Your task to perform on an android device: turn vacation reply on in the gmail app Image 0: 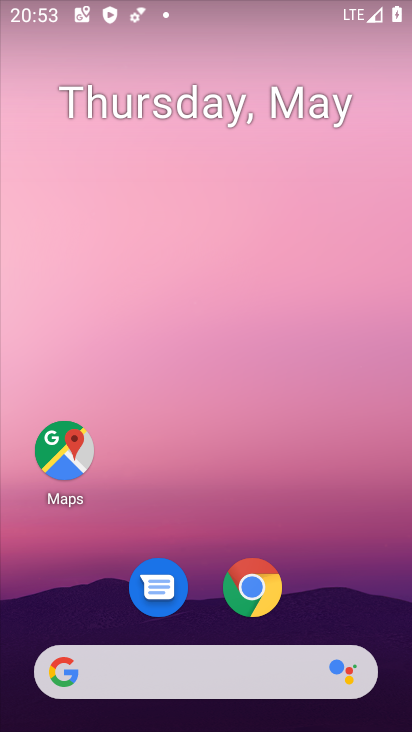
Step 0: drag from (132, 728) to (143, 128)
Your task to perform on an android device: turn vacation reply on in the gmail app Image 1: 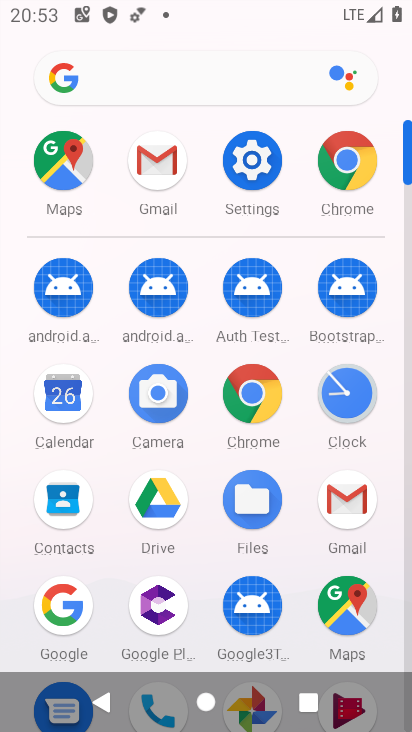
Step 1: click (161, 164)
Your task to perform on an android device: turn vacation reply on in the gmail app Image 2: 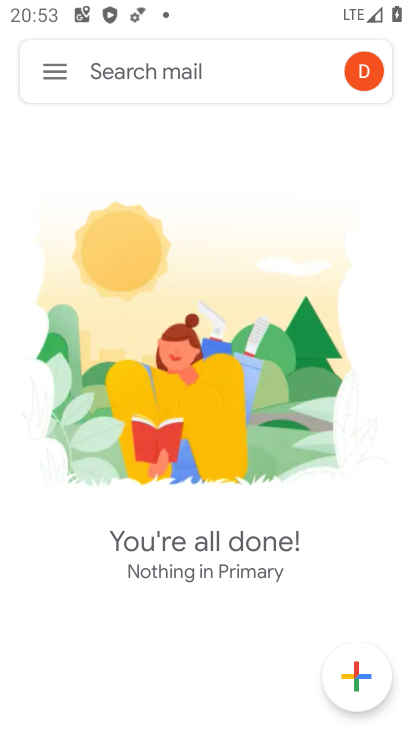
Step 2: click (53, 75)
Your task to perform on an android device: turn vacation reply on in the gmail app Image 3: 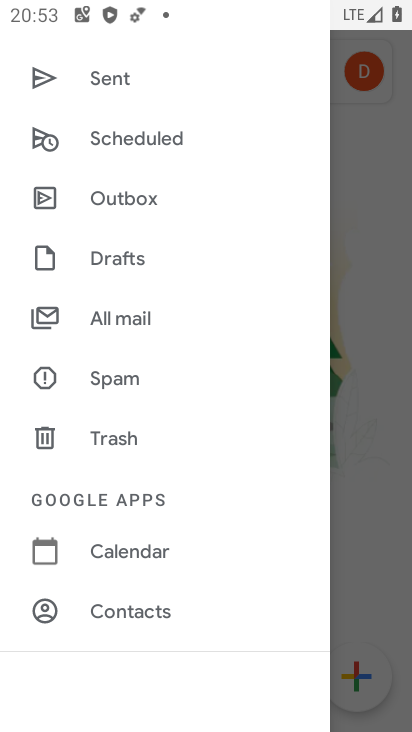
Step 3: drag from (142, 665) to (244, 164)
Your task to perform on an android device: turn vacation reply on in the gmail app Image 4: 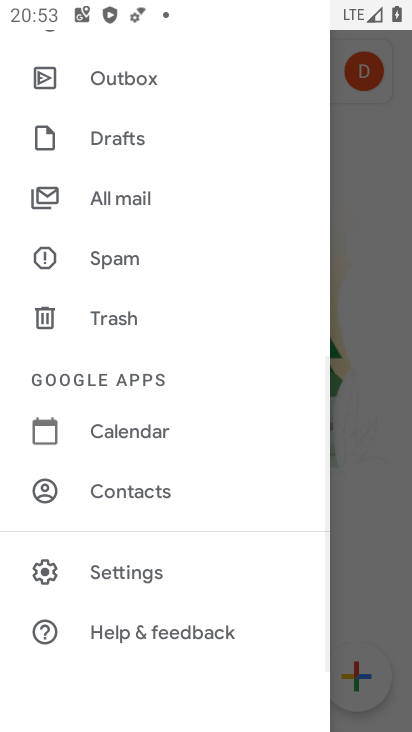
Step 4: click (160, 576)
Your task to perform on an android device: turn vacation reply on in the gmail app Image 5: 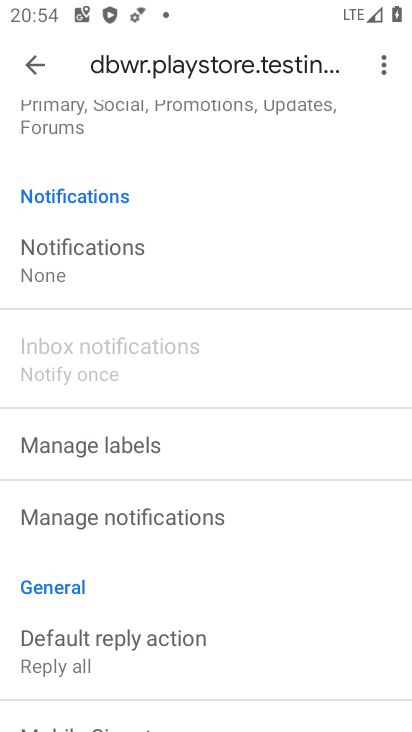
Step 5: drag from (283, 677) to (305, 271)
Your task to perform on an android device: turn vacation reply on in the gmail app Image 6: 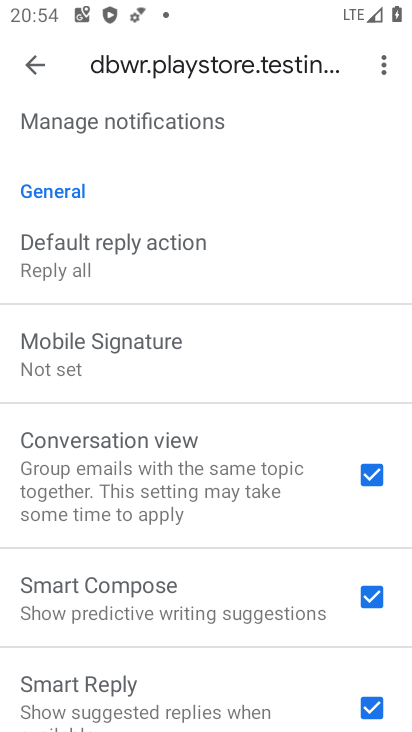
Step 6: drag from (237, 668) to (251, 393)
Your task to perform on an android device: turn vacation reply on in the gmail app Image 7: 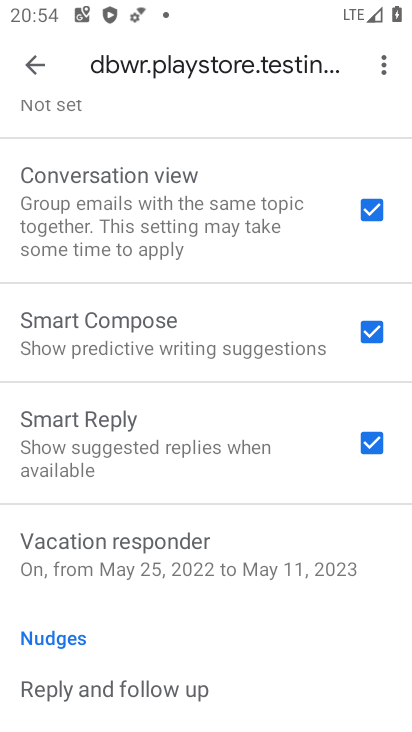
Step 7: drag from (237, 622) to (214, 388)
Your task to perform on an android device: turn vacation reply on in the gmail app Image 8: 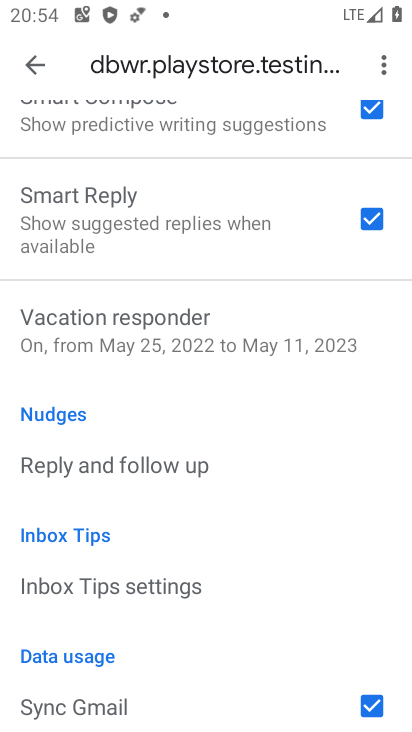
Step 8: click (212, 336)
Your task to perform on an android device: turn vacation reply on in the gmail app Image 9: 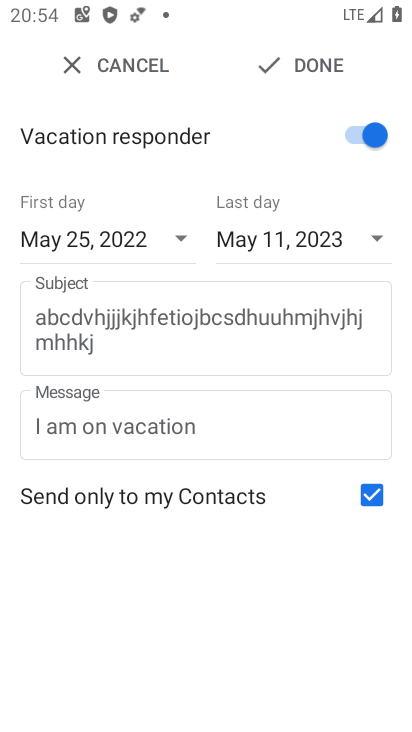
Step 9: task complete